Your task to perform on an android device: Open accessibility settings Image 0: 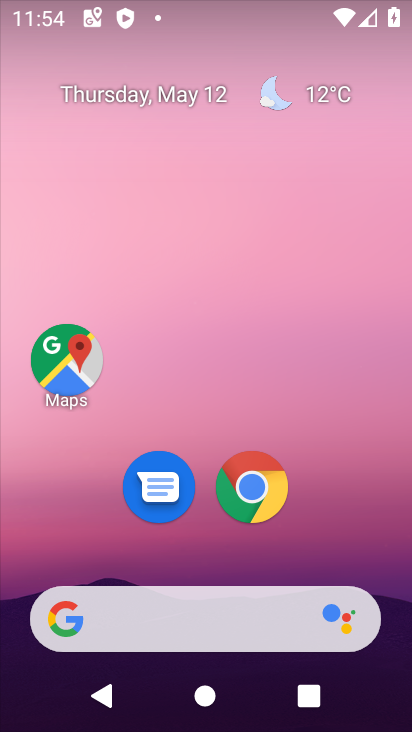
Step 0: drag from (393, 566) to (387, 2)
Your task to perform on an android device: Open accessibility settings Image 1: 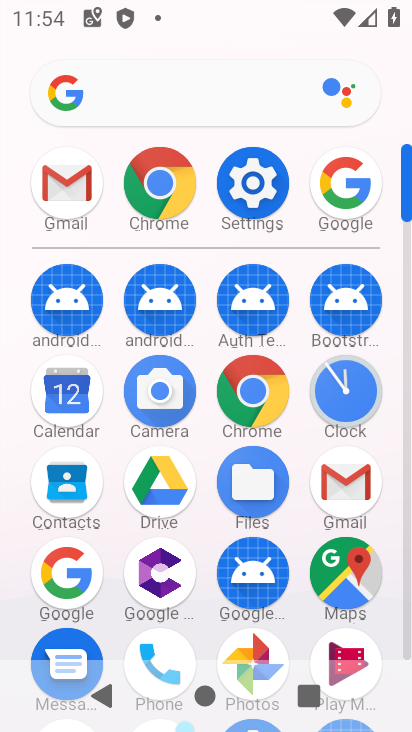
Step 1: click (246, 190)
Your task to perform on an android device: Open accessibility settings Image 2: 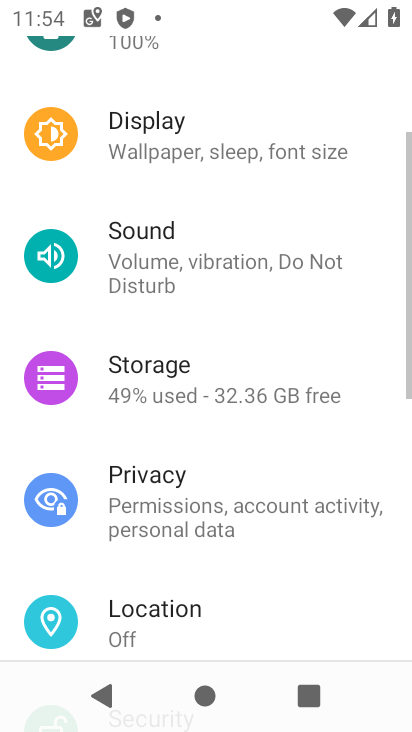
Step 2: drag from (353, 643) to (341, 16)
Your task to perform on an android device: Open accessibility settings Image 3: 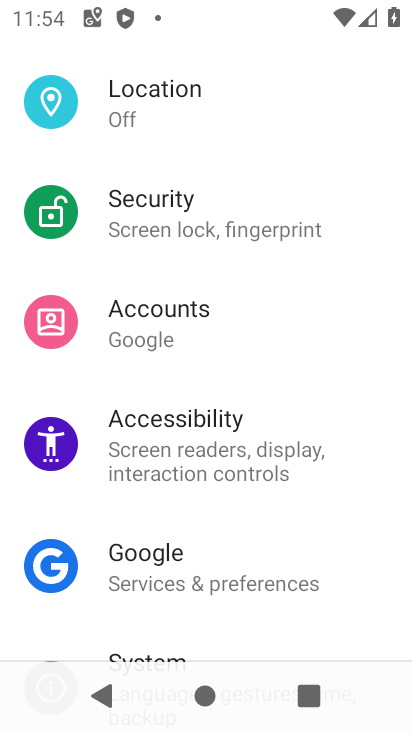
Step 3: click (184, 432)
Your task to perform on an android device: Open accessibility settings Image 4: 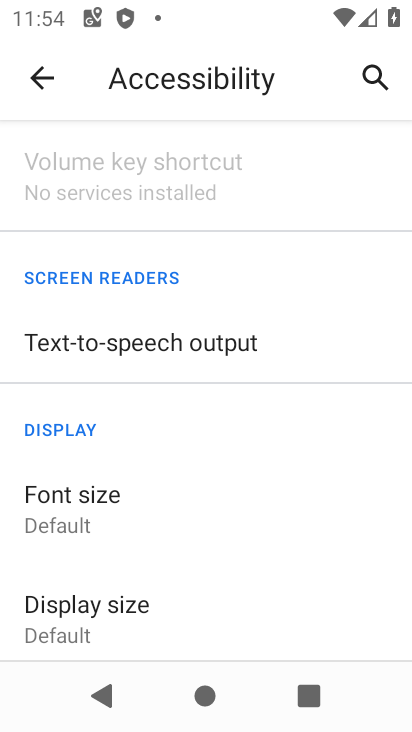
Step 4: task complete